Your task to perform on an android device: Open Google Chrome and open the bookmarks view Image 0: 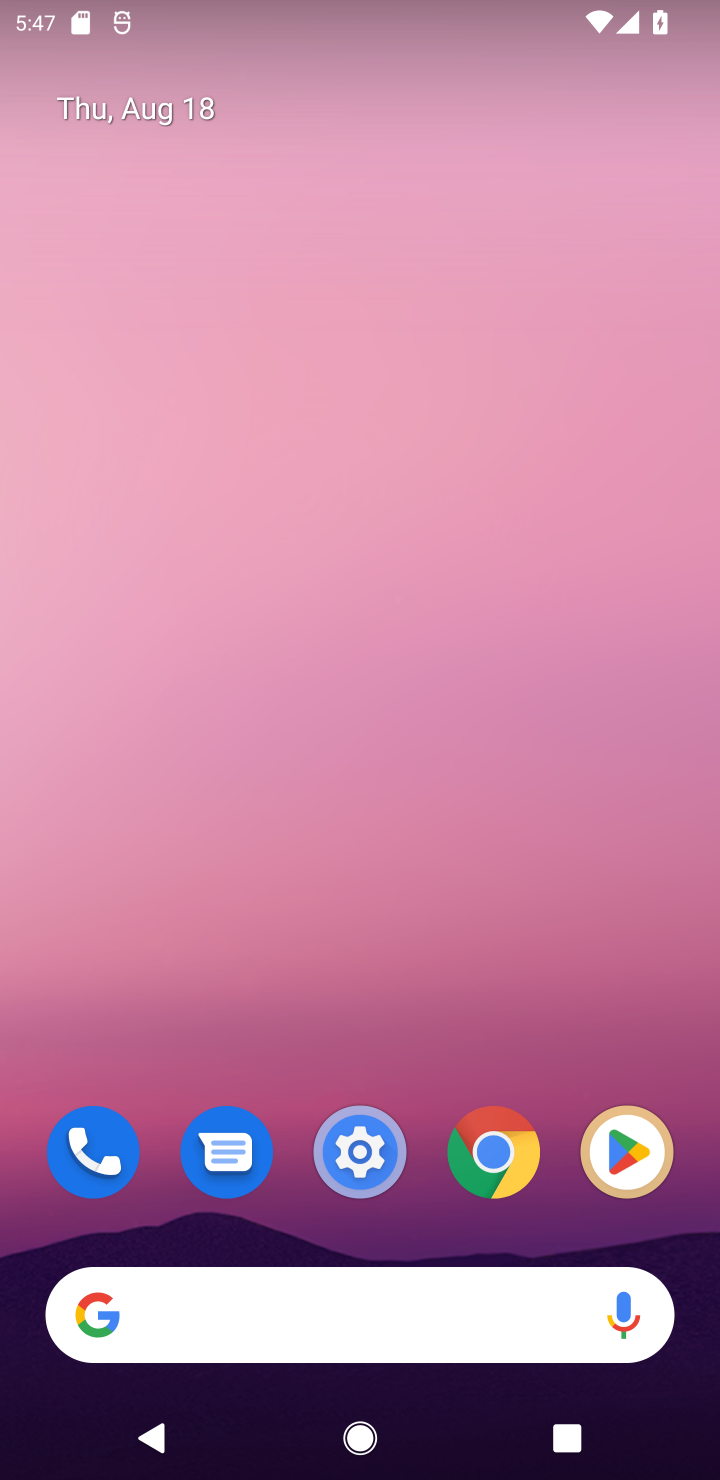
Step 0: click (343, 1139)
Your task to perform on an android device: Open Google Chrome and open the bookmarks view Image 1: 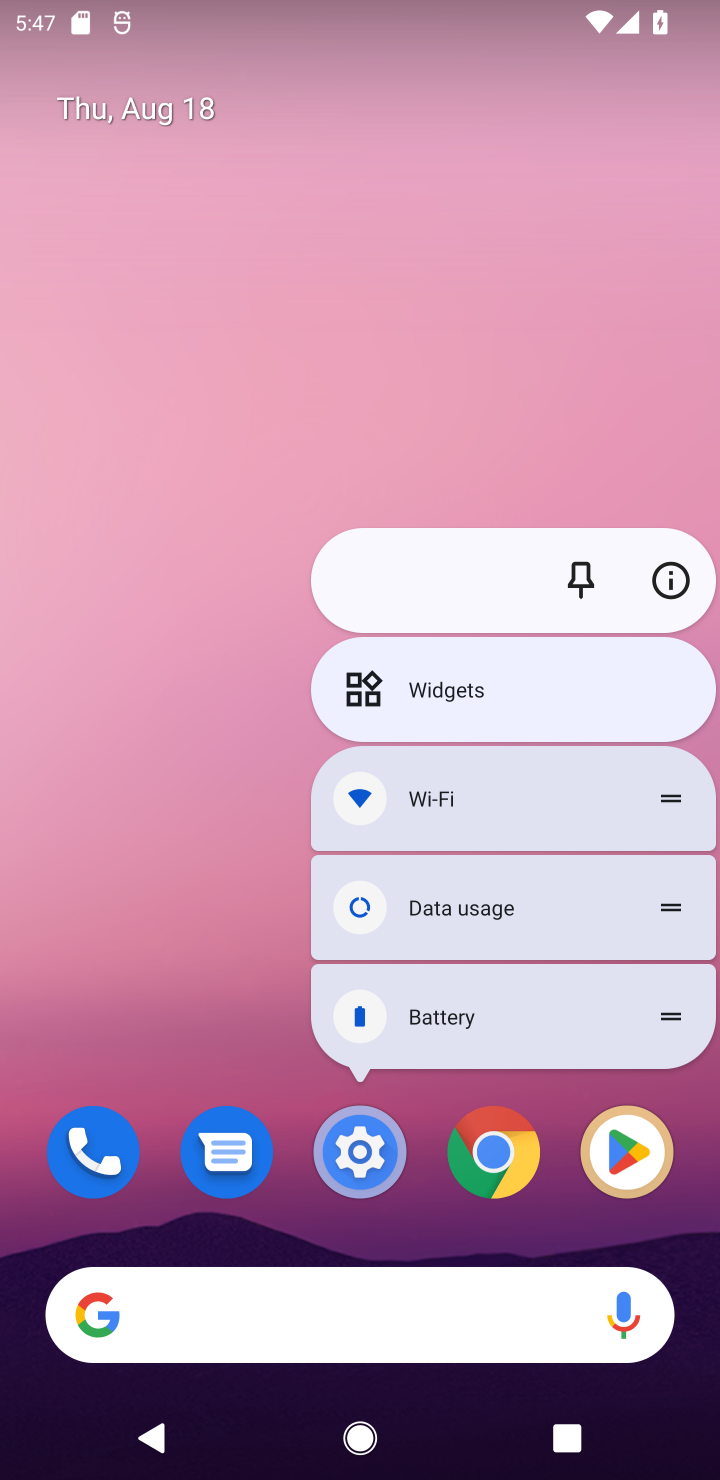
Step 1: click (482, 1149)
Your task to perform on an android device: Open Google Chrome and open the bookmarks view Image 2: 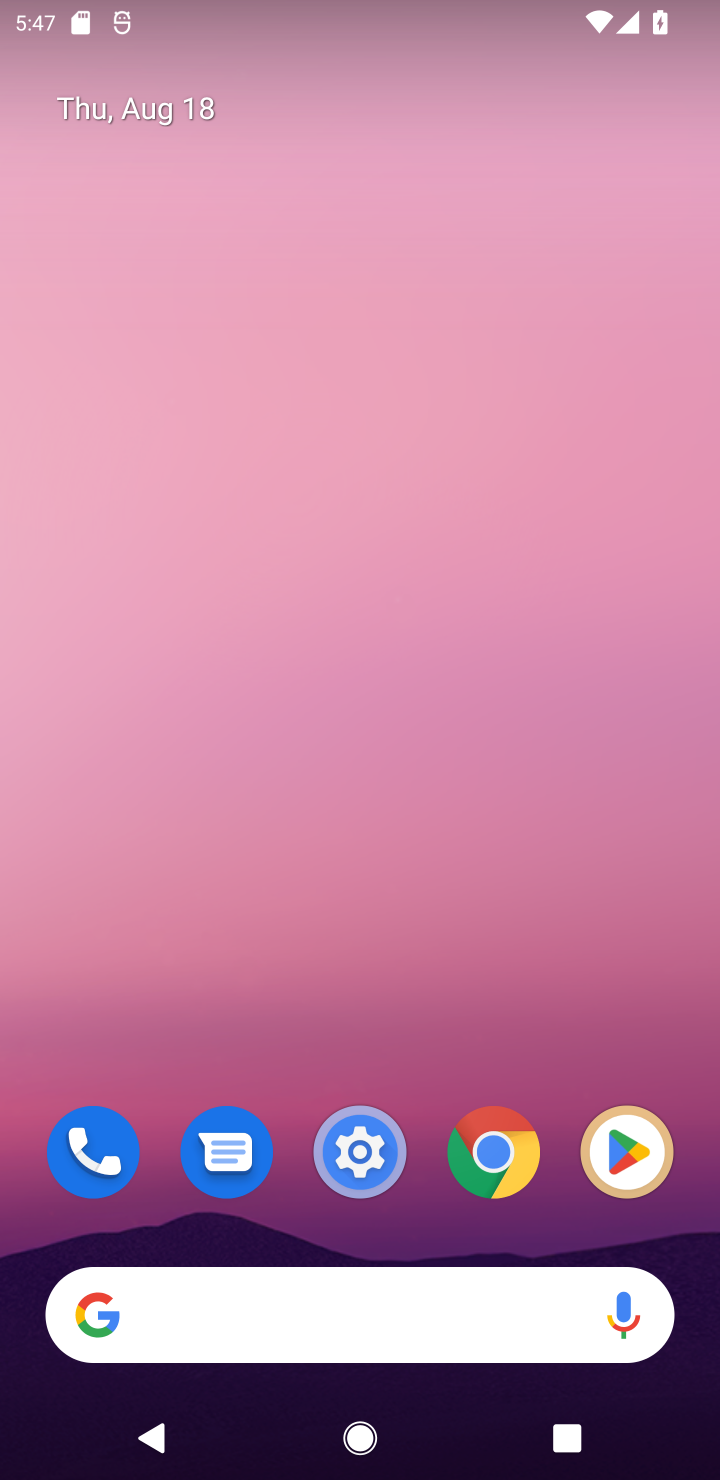
Step 2: click (482, 1149)
Your task to perform on an android device: Open Google Chrome and open the bookmarks view Image 3: 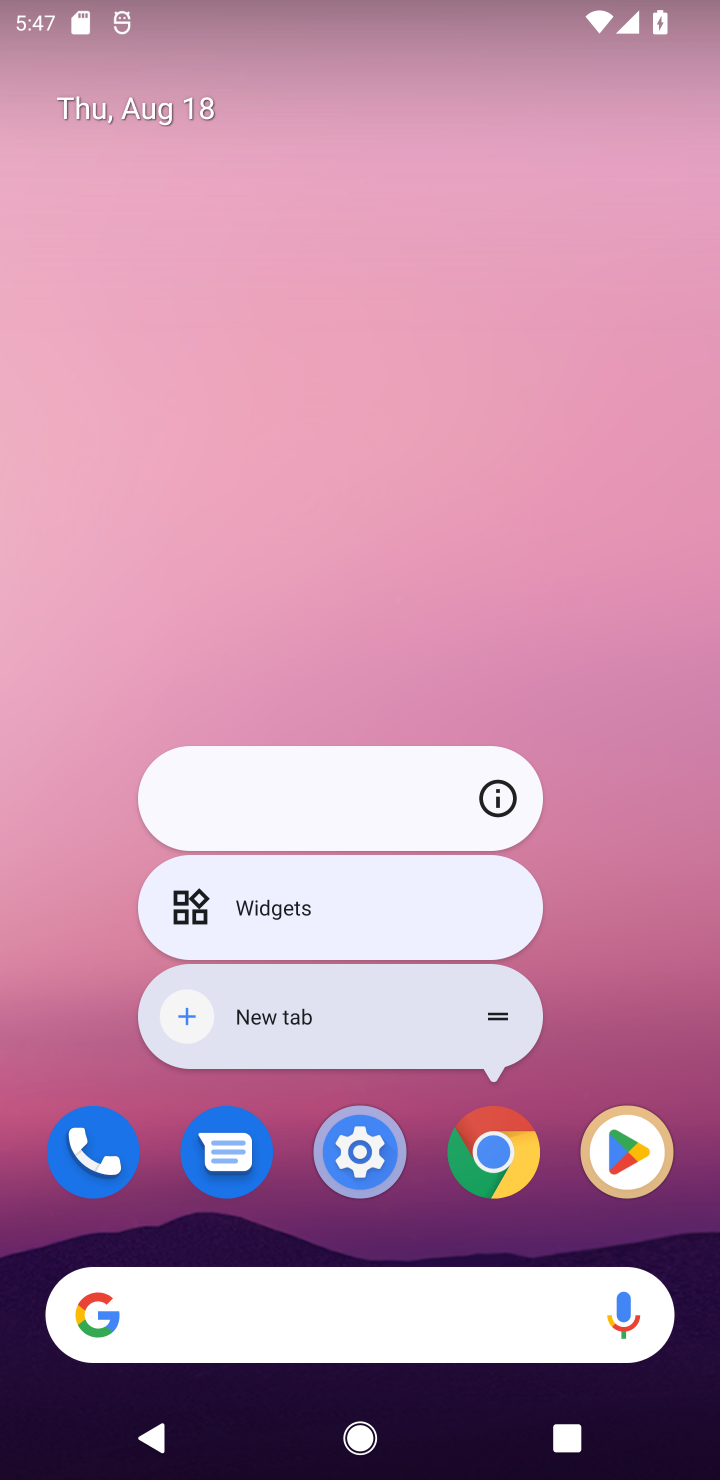
Step 3: click (488, 1140)
Your task to perform on an android device: Open Google Chrome and open the bookmarks view Image 4: 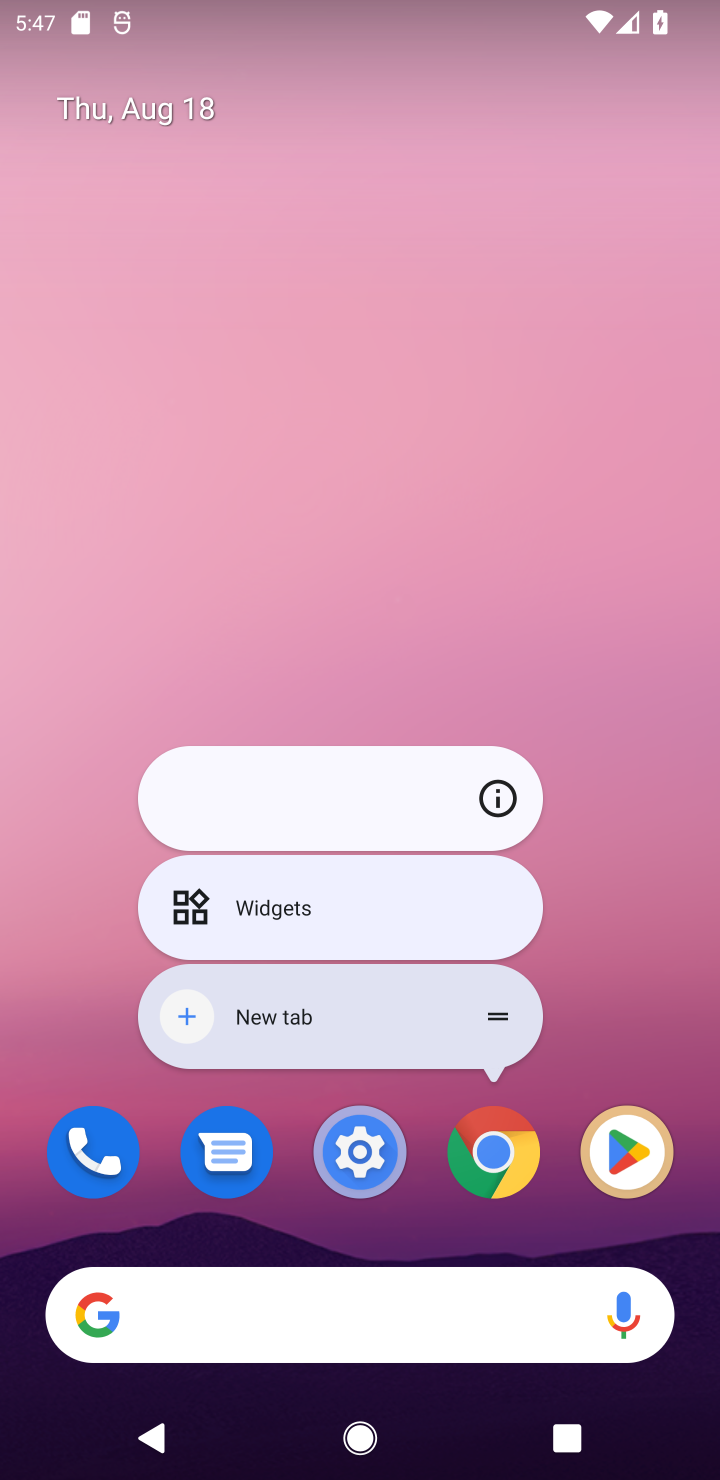
Step 4: click (381, 1316)
Your task to perform on an android device: Open Google Chrome and open the bookmarks view Image 5: 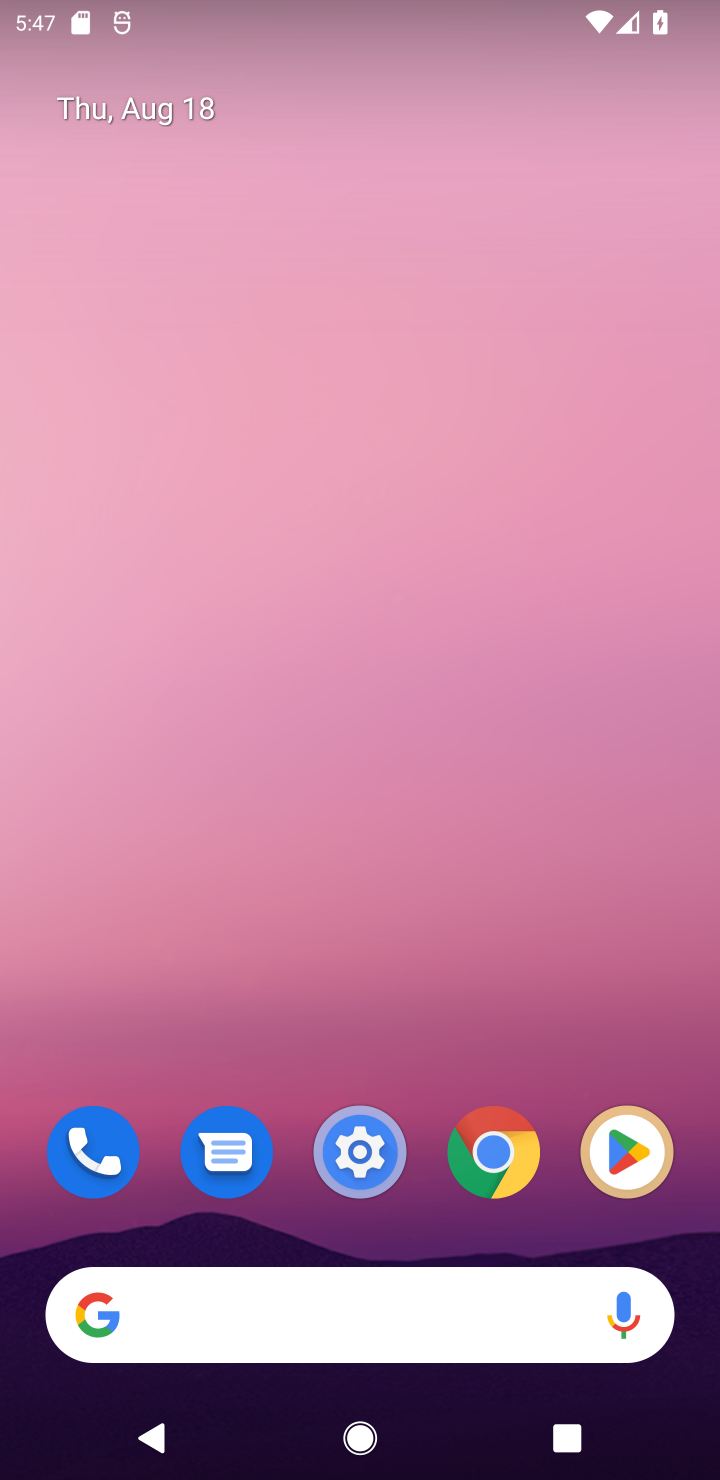
Step 5: task complete